Your task to perform on an android device: install app "VLC for Android" Image 0: 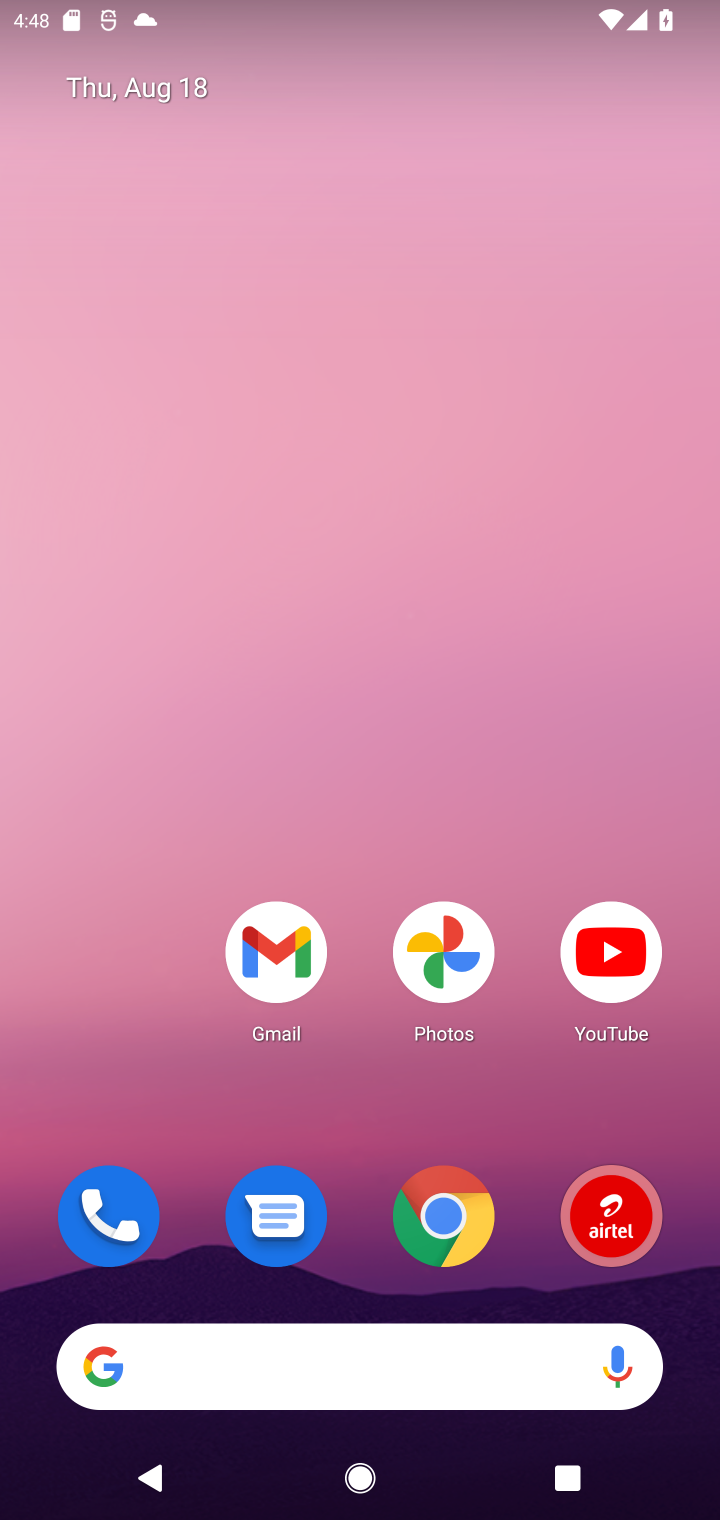
Step 0: drag from (348, 910) to (360, 198)
Your task to perform on an android device: install app "VLC for Android" Image 1: 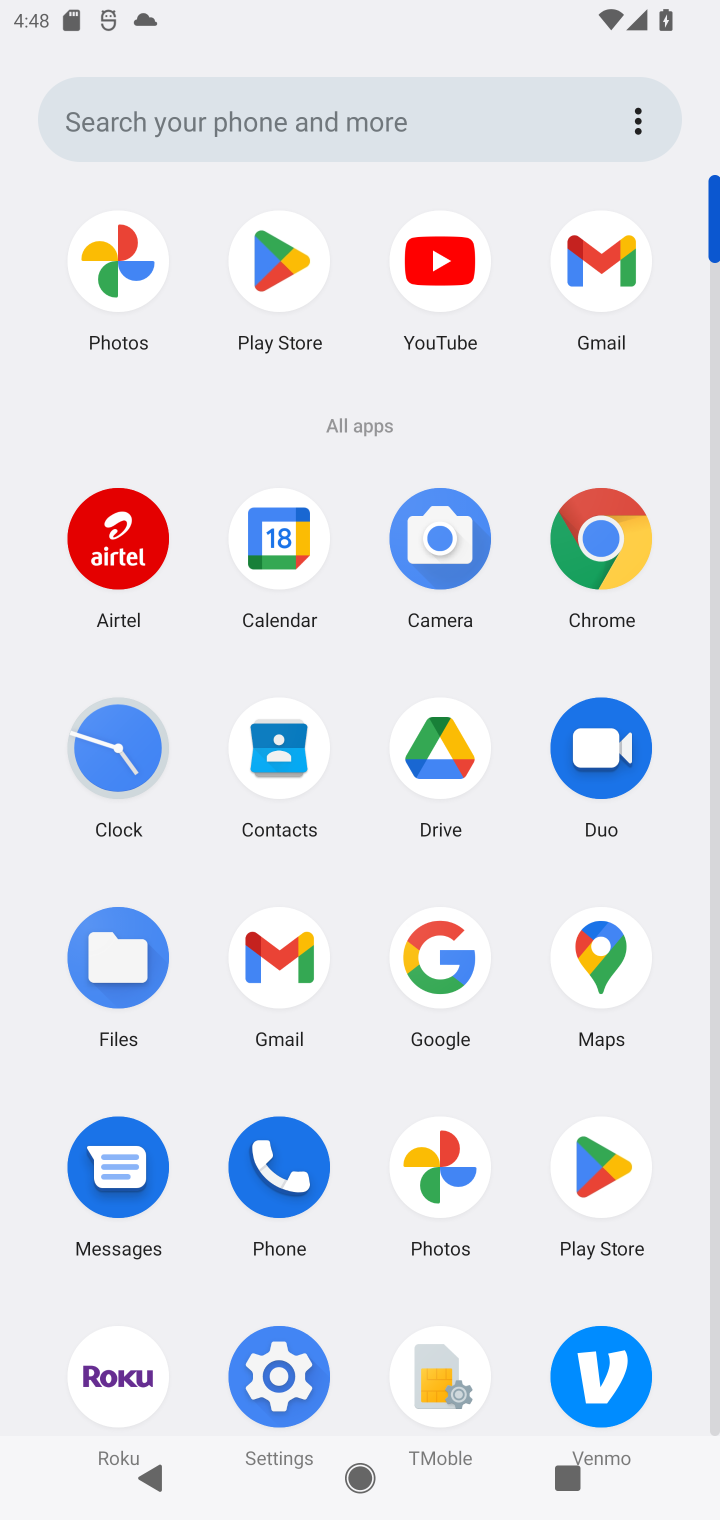
Step 1: click (271, 298)
Your task to perform on an android device: install app "VLC for Android" Image 2: 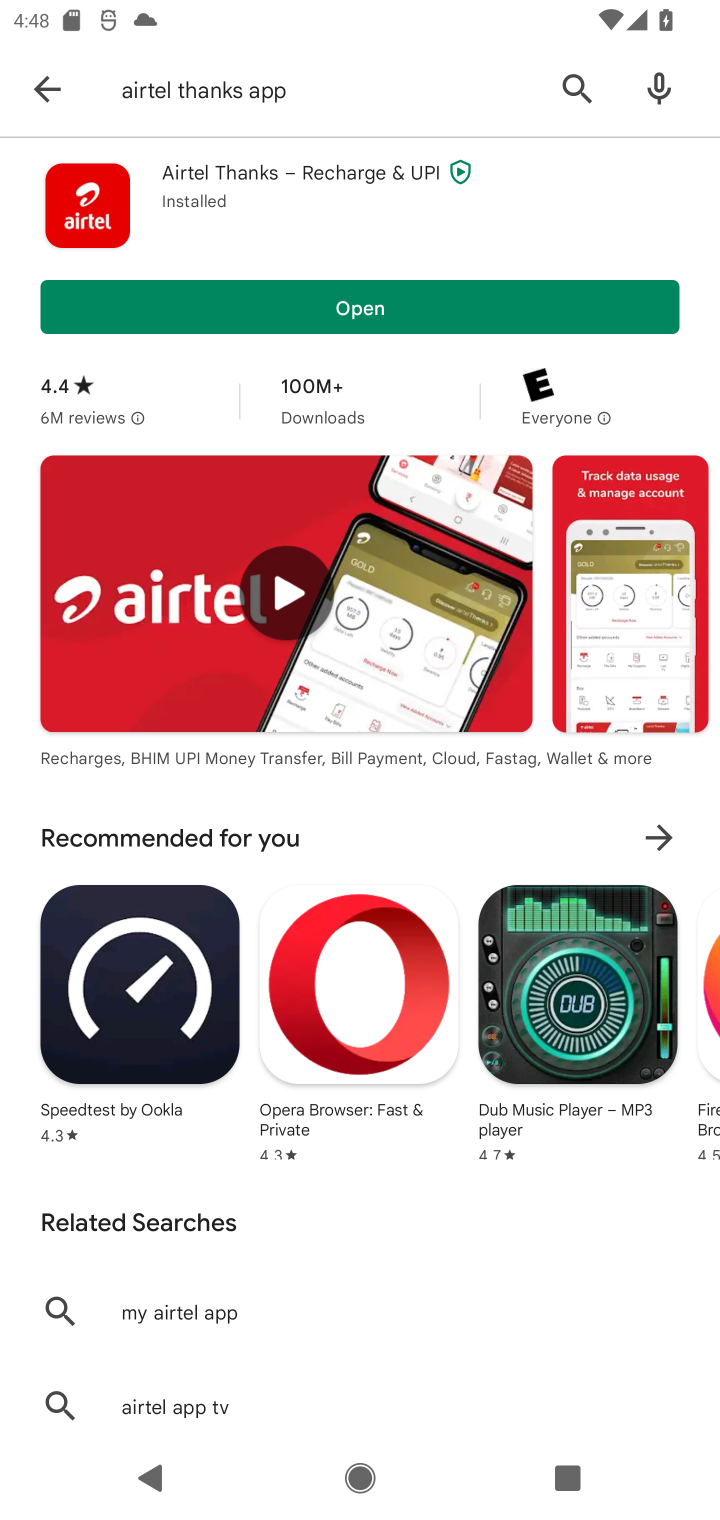
Step 2: click (570, 78)
Your task to perform on an android device: install app "VLC for Android" Image 3: 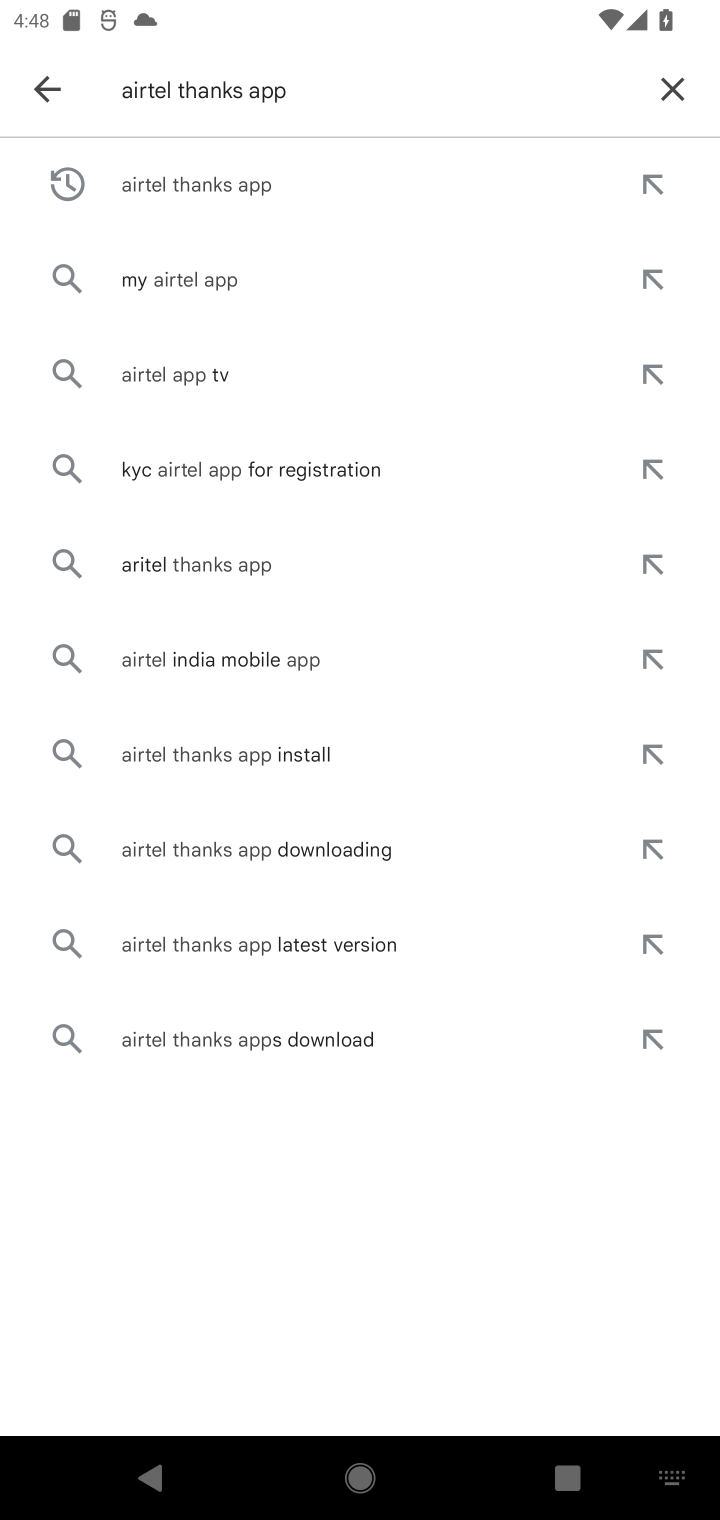
Step 3: click (672, 96)
Your task to perform on an android device: install app "VLC for Android" Image 4: 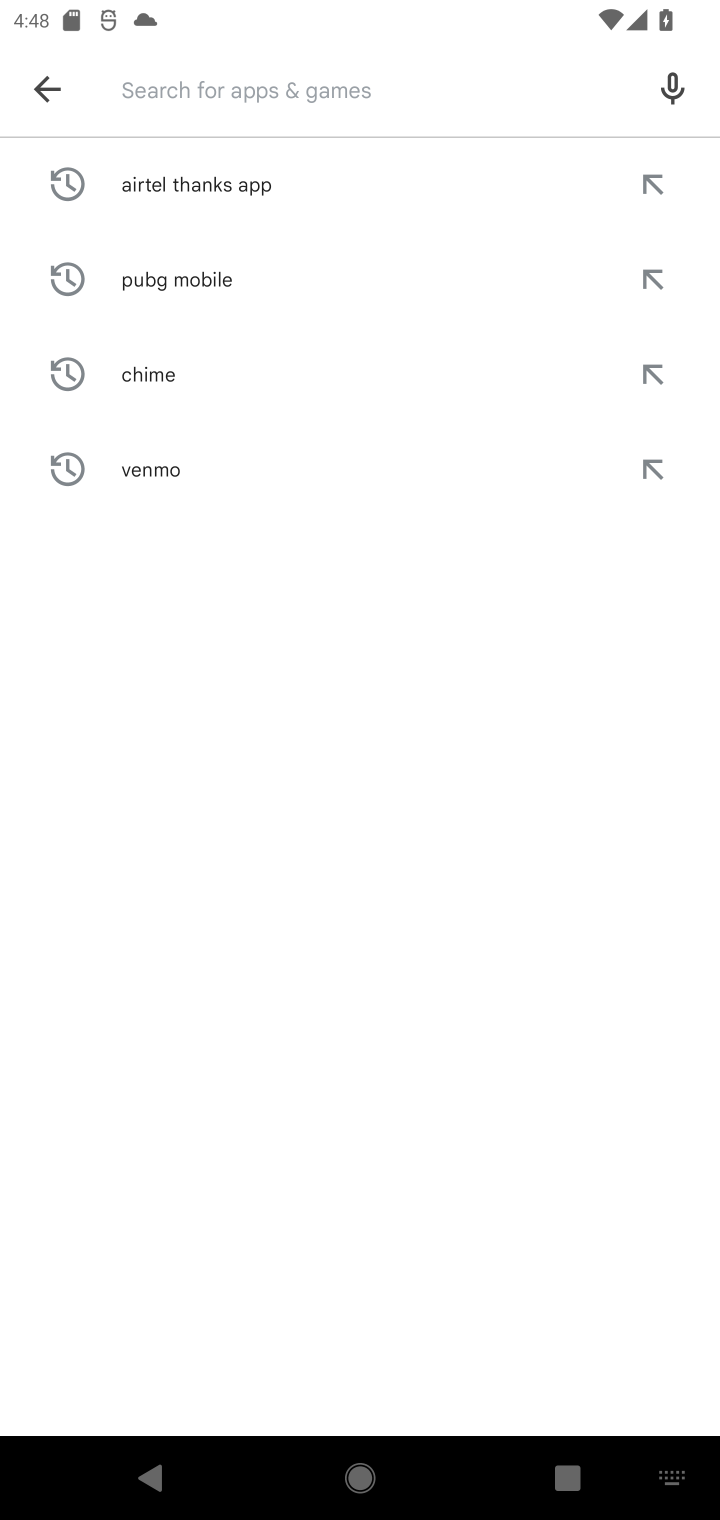
Step 4: type "VLC for Android"
Your task to perform on an android device: install app "VLC for Android" Image 5: 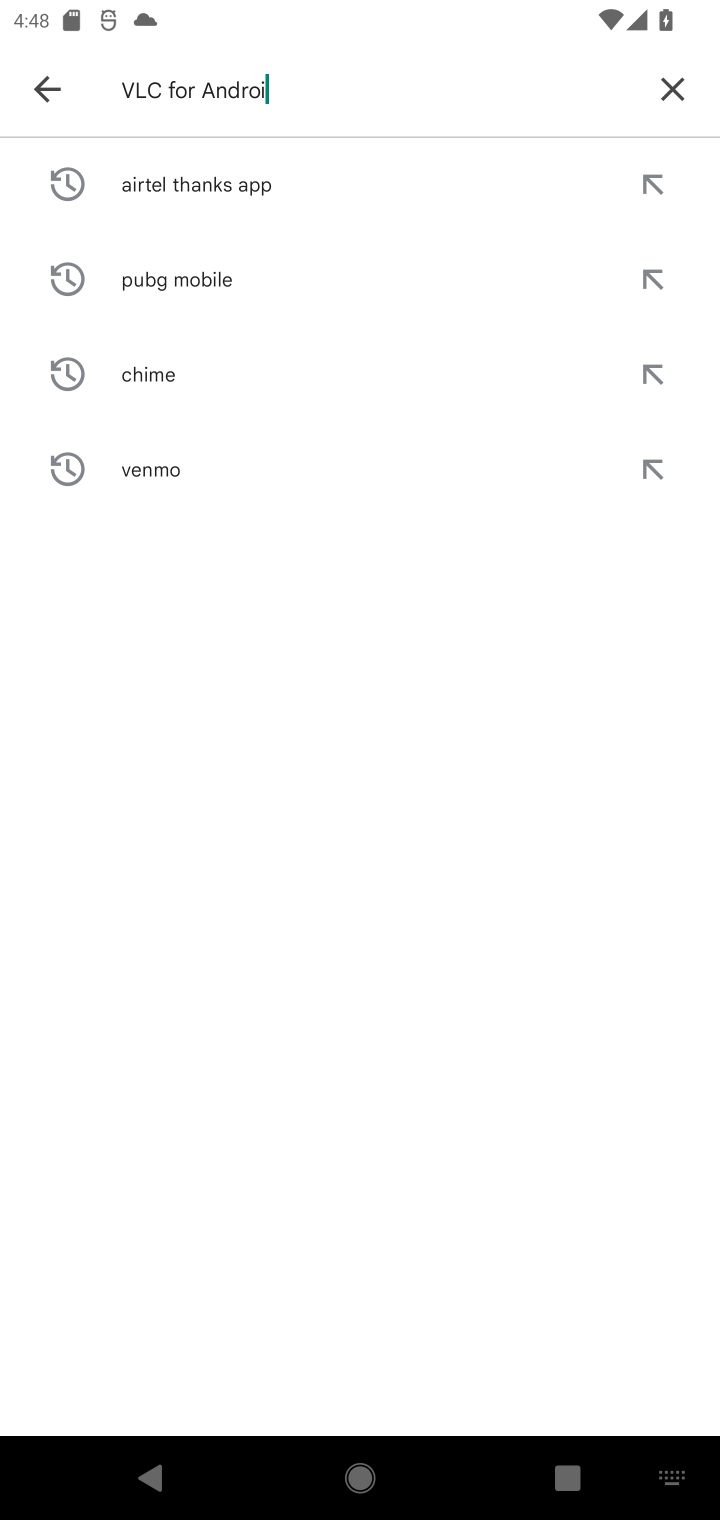
Step 5: type ""
Your task to perform on an android device: install app "VLC for Android" Image 6: 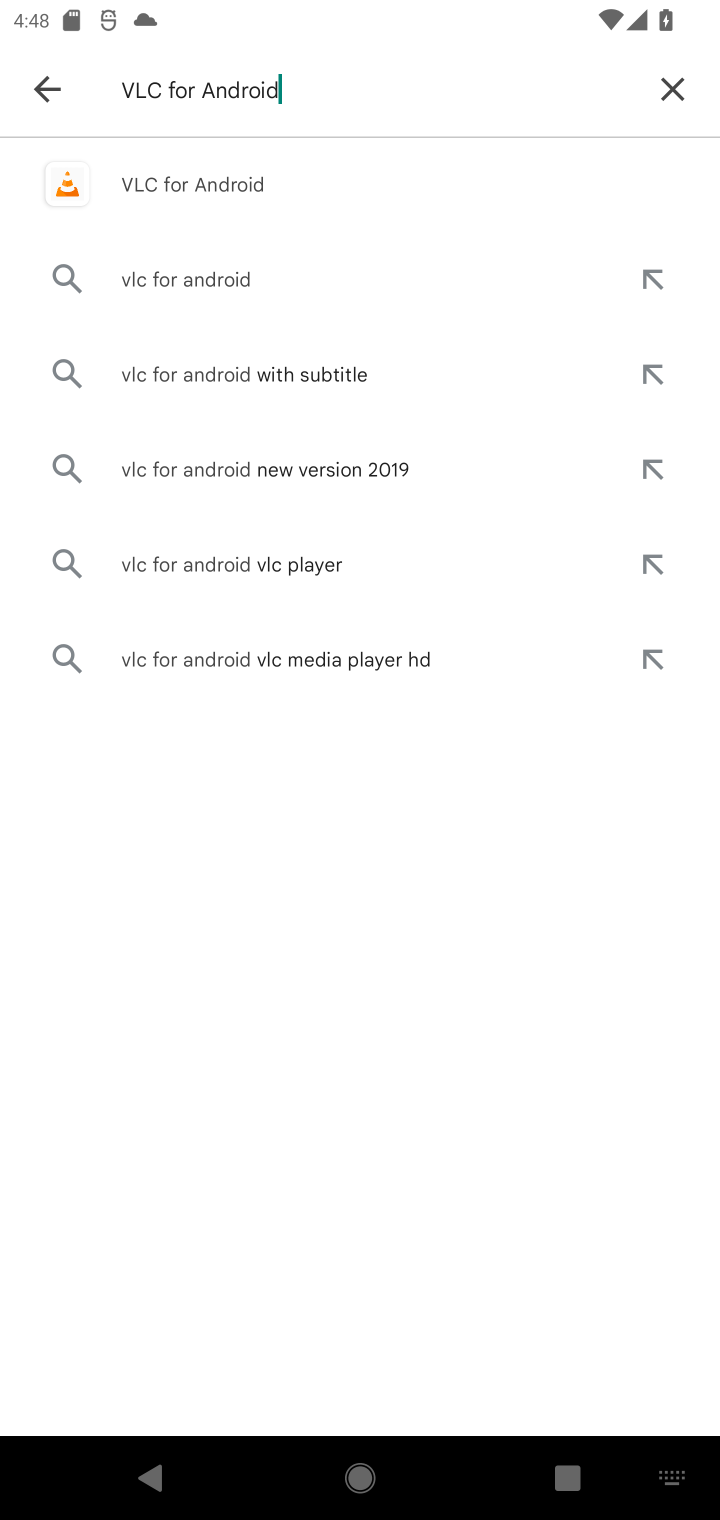
Step 6: click (305, 187)
Your task to perform on an android device: install app "VLC for Android" Image 7: 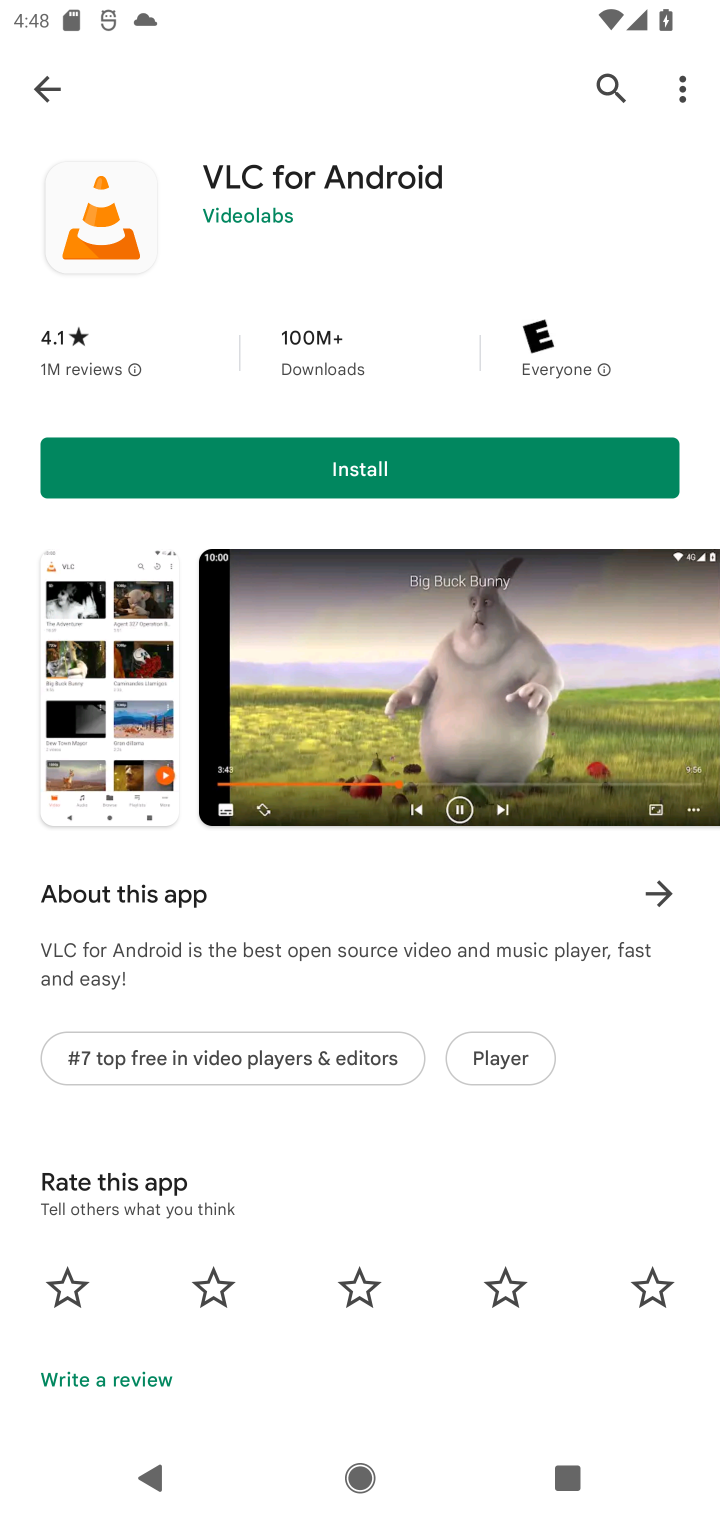
Step 7: click (406, 465)
Your task to perform on an android device: install app "VLC for Android" Image 8: 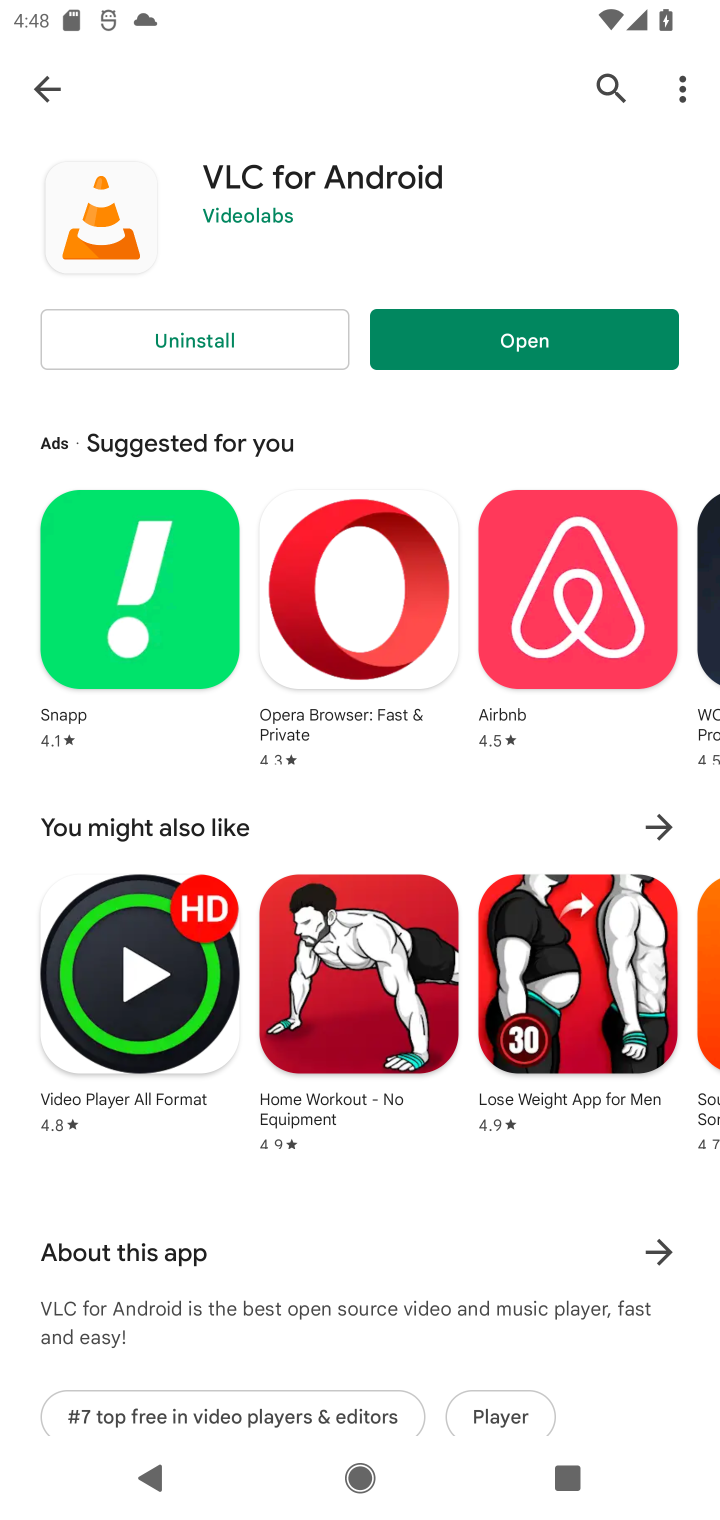
Step 8: task complete